Your task to perform on an android device: change the clock display to show seconds Image 0: 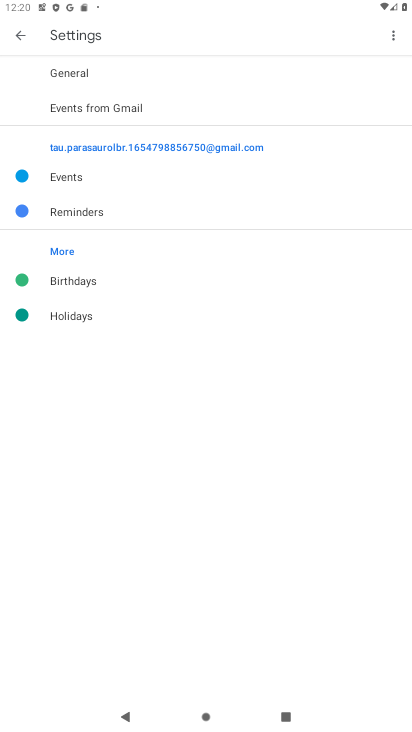
Step 0: press home button
Your task to perform on an android device: change the clock display to show seconds Image 1: 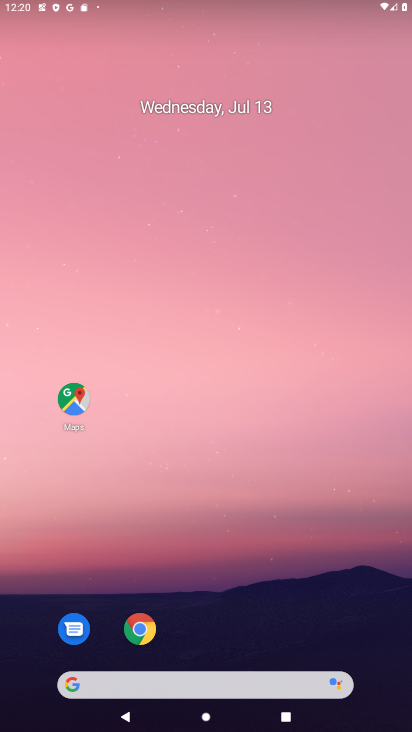
Step 1: drag from (237, 623) to (225, 135)
Your task to perform on an android device: change the clock display to show seconds Image 2: 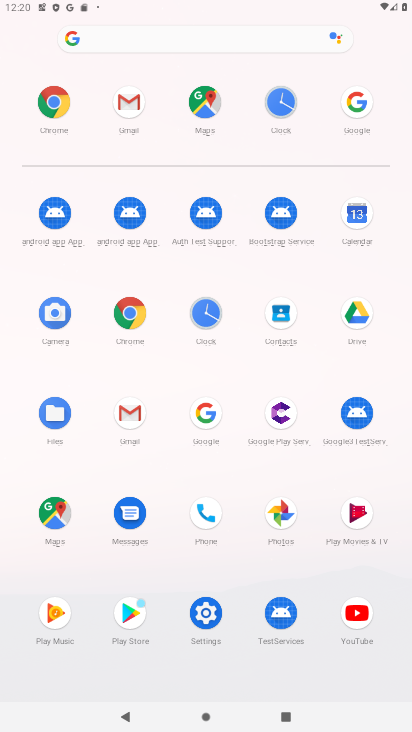
Step 2: click (206, 308)
Your task to perform on an android device: change the clock display to show seconds Image 3: 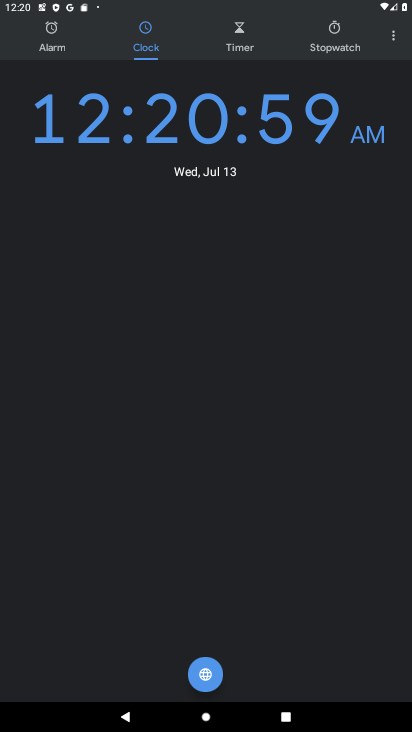
Step 3: click (389, 36)
Your task to perform on an android device: change the clock display to show seconds Image 4: 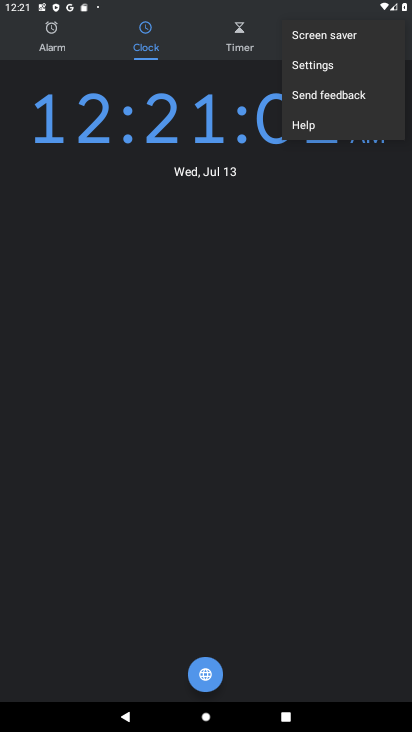
Step 4: click (302, 62)
Your task to perform on an android device: change the clock display to show seconds Image 5: 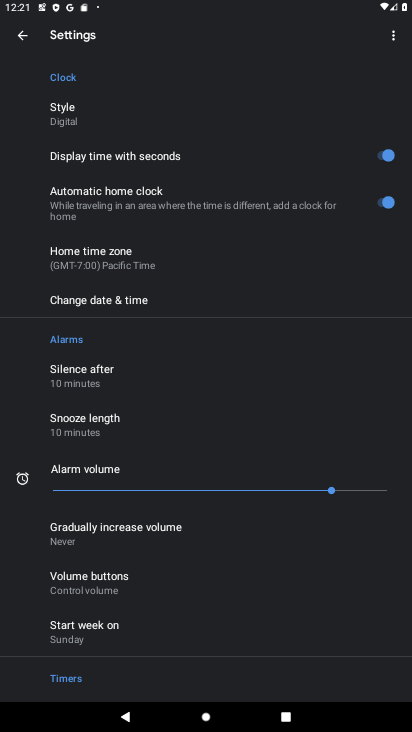
Step 5: click (384, 143)
Your task to perform on an android device: change the clock display to show seconds Image 6: 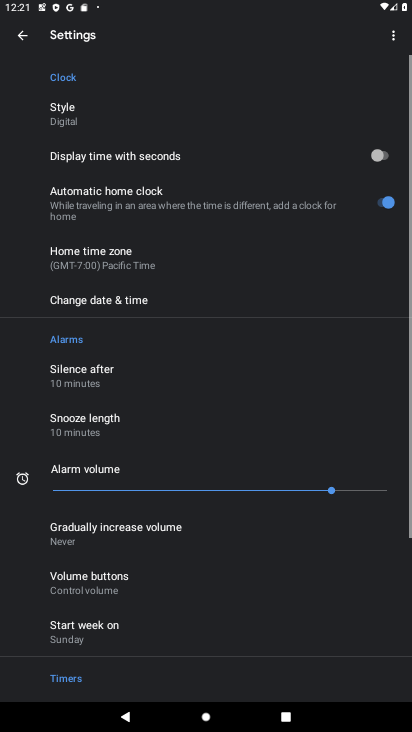
Step 6: task complete